Your task to perform on an android device: turn on the 12-hour format for clock Image 0: 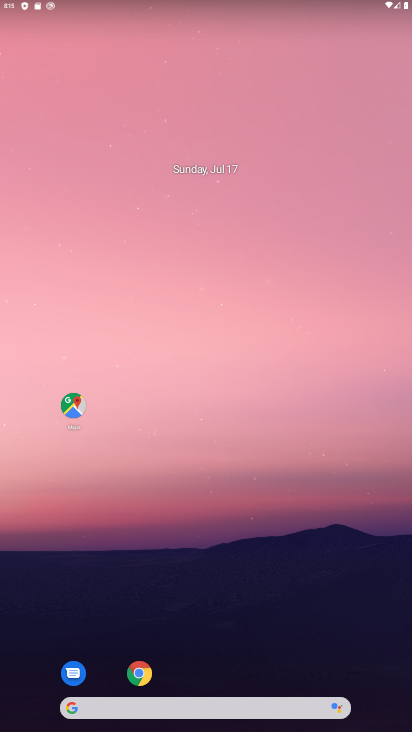
Step 0: drag from (261, 657) to (290, 0)
Your task to perform on an android device: turn on the 12-hour format for clock Image 1: 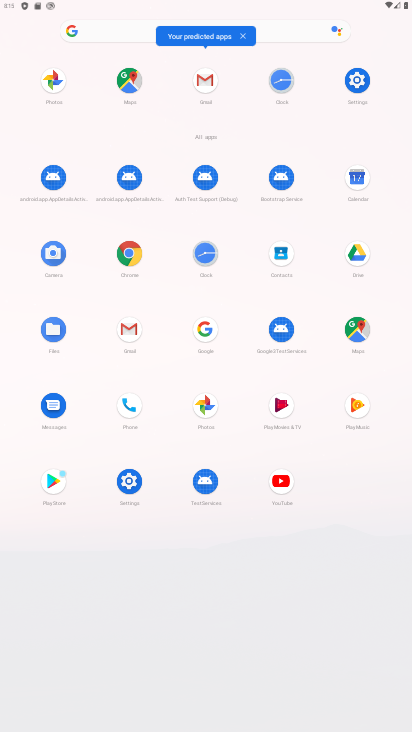
Step 1: click (277, 76)
Your task to perform on an android device: turn on the 12-hour format for clock Image 2: 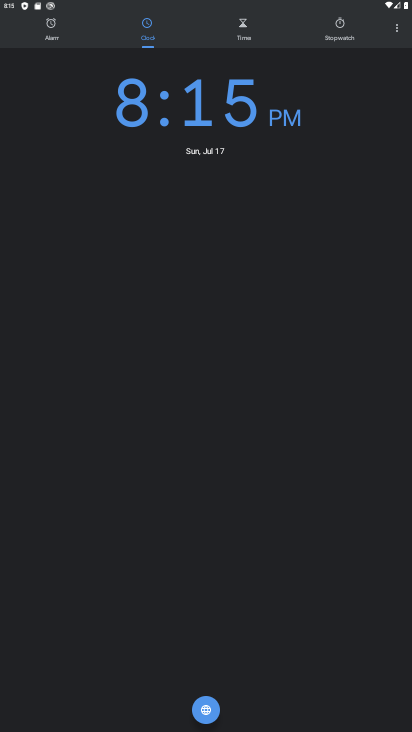
Step 2: click (396, 37)
Your task to perform on an android device: turn on the 12-hour format for clock Image 3: 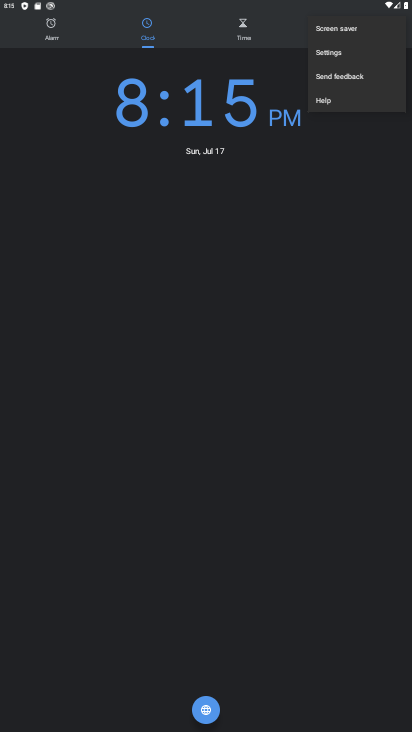
Step 3: click (347, 52)
Your task to perform on an android device: turn on the 12-hour format for clock Image 4: 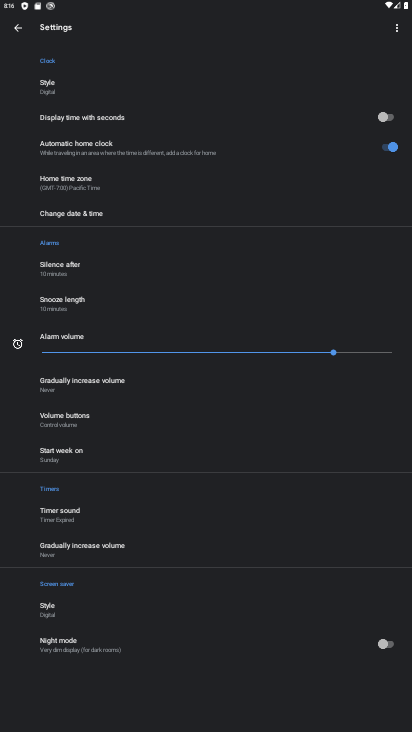
Step 4: click (132, 216)
Your task to perform on an android device: turn on the 12-hour format for clock Image 5: 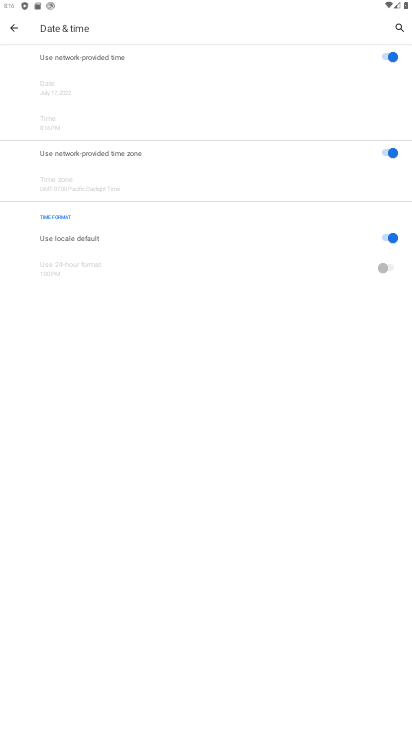
Step 5: task complete